Your task to perform on an android device: What's the news this afternoon? Image 0: 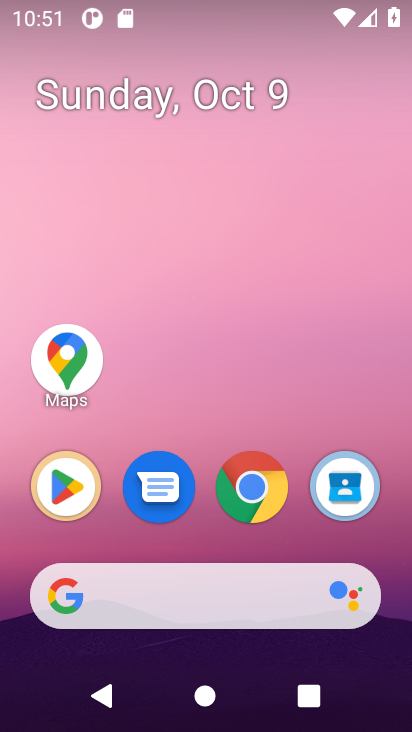
Step 0: click (255, 487)
Your task to perform on an android device: What's the news this afternoon? Image 1: 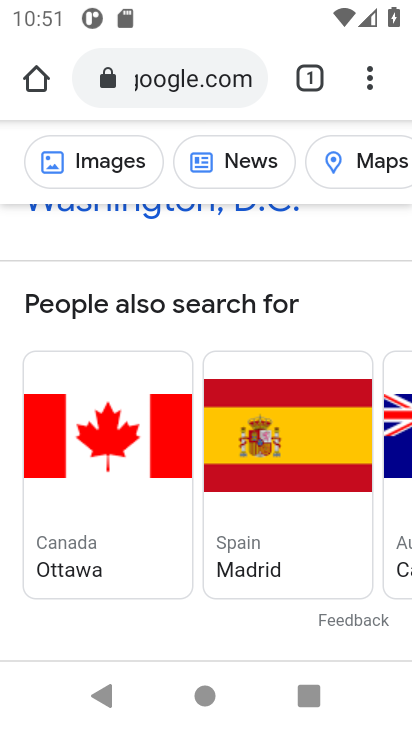
Step 1: click (212, 82)
Your task to perform on an android device: What's the news this afternoon? Image 2: 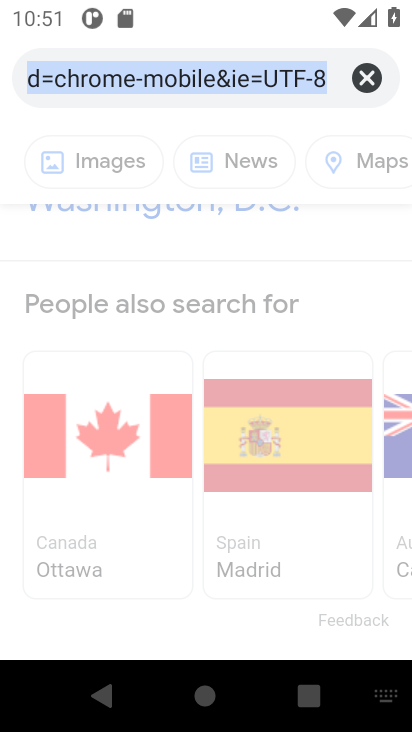
Step 2: type "news this afternoon"
Your task to perform on an android device: What's the news this afternoon? Image 3: 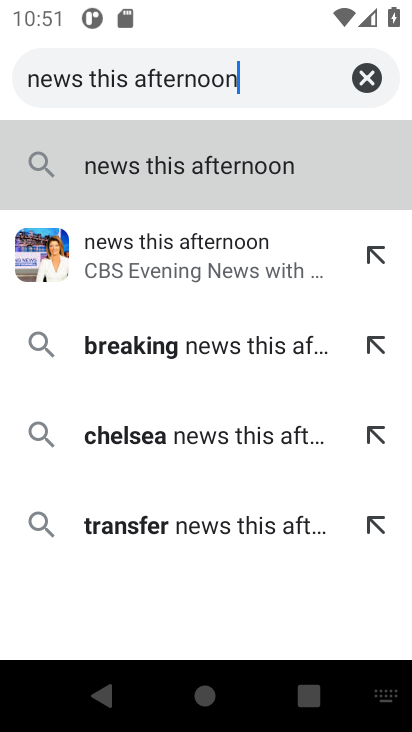
Step 3: type ""
Your task to perform on an android device: What's the news this afternoon? Image 4: 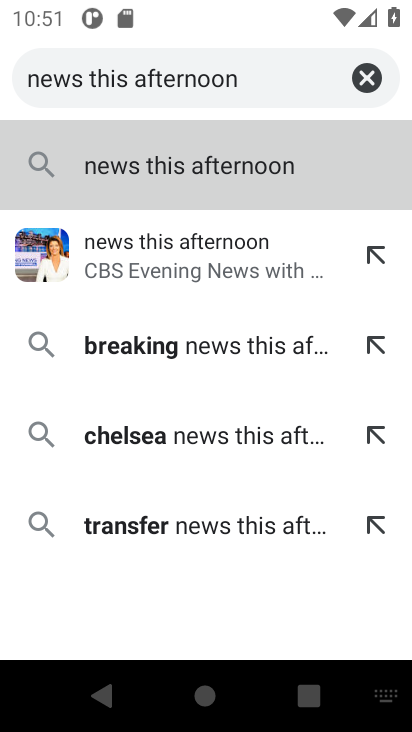
Step 4: press enter
Your task to perform on an android device: What's the news this afternoon? Image 5: 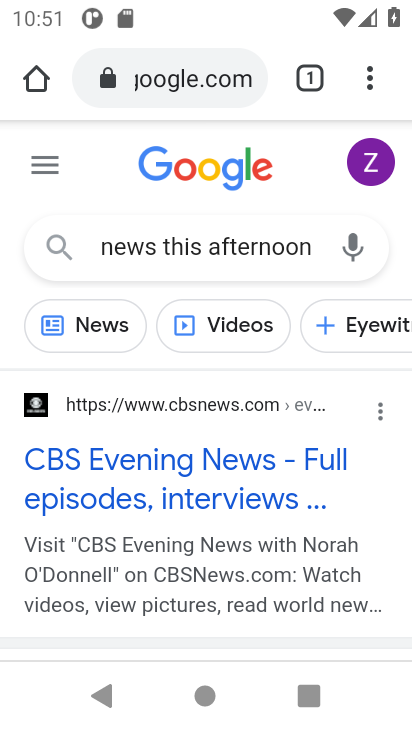
Step 5: click (182, 488)
Your task to perform on an android device: What's the news this afternoon? Image 6: 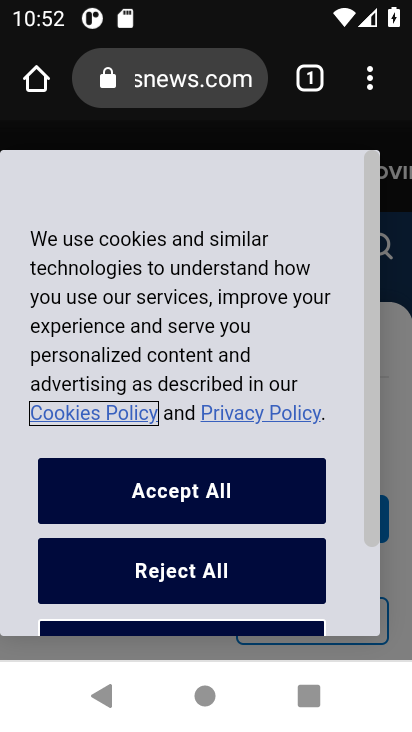
Step 6: click (234, 490)
Your task to perform on an android device: What's the news this afternoon? Image 7: 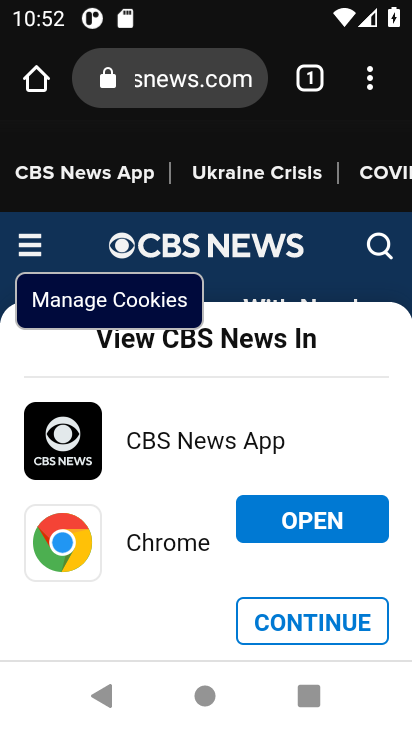
Step 7: click (338, 633)
Your task to perform on an android device: What's the news this afternoon? Image 8: 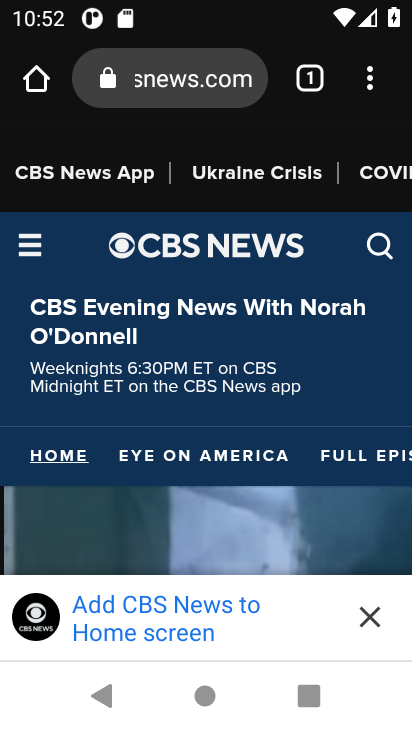
Step 8: click (369, 621)
Your task to perform on an android device: What's the news this afternoon? Image 9: 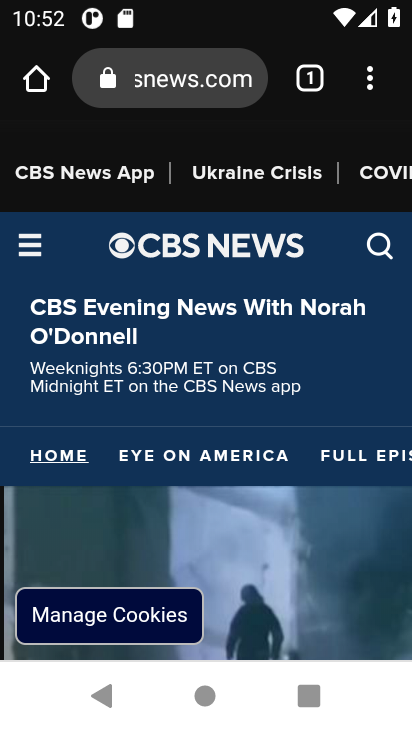
Step 9: drag from (293, 516) to (283, 164)
Your task to perform on an android device: What's the news this afternoon? Image 10: 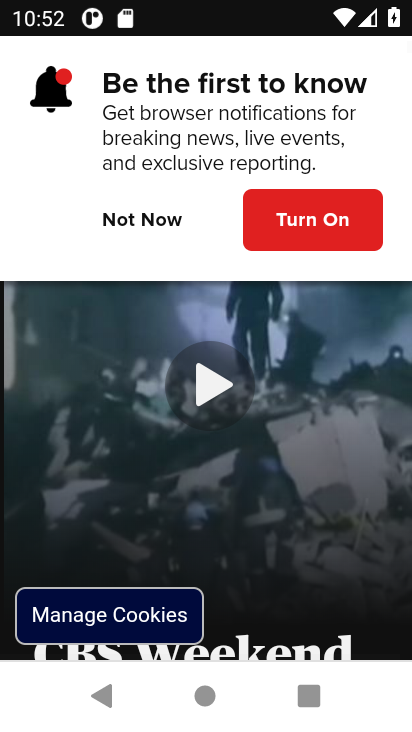
Step 10: drag from (316, 506) to (296, 192)
Your task to perform on an android device: What's the news this afternoon? Image 11: 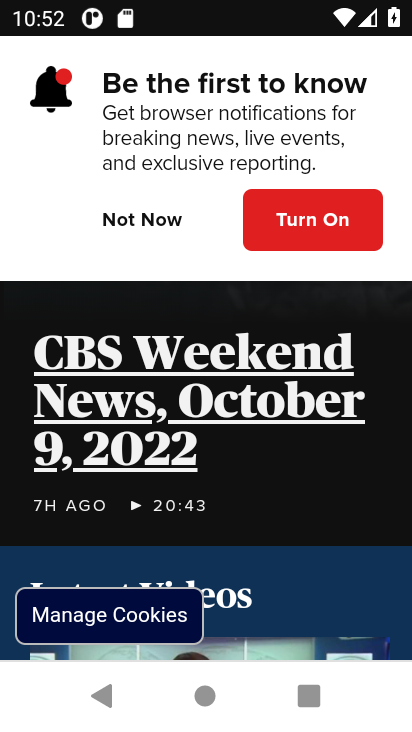
Step 11: drag from (313, 583) to (288, 267)
Your task to perform on an android device: What's the news this afternoon? Image 12: 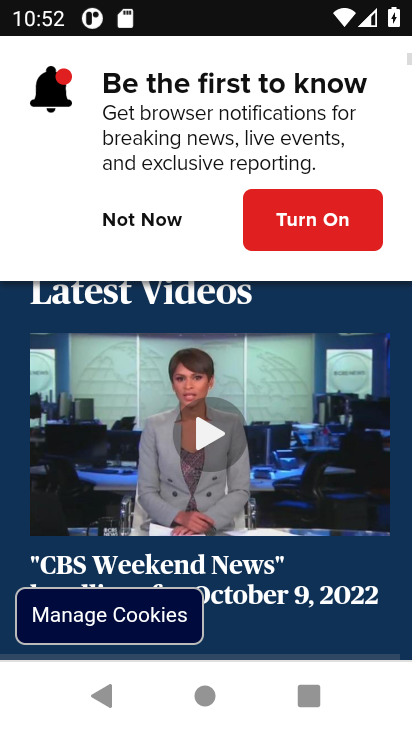
Step 12: drag from (283, 560) to (266, 259)
Your task to perform on an android device: What's the news this afternoon? Image 13: 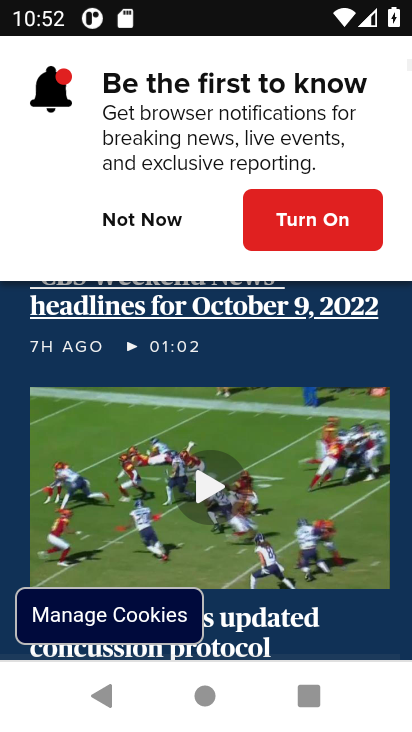
Step 13: drag from (291, 567) to (267, 231)
Your task to perform on an android device: What's the news this afternoon? Image 14: 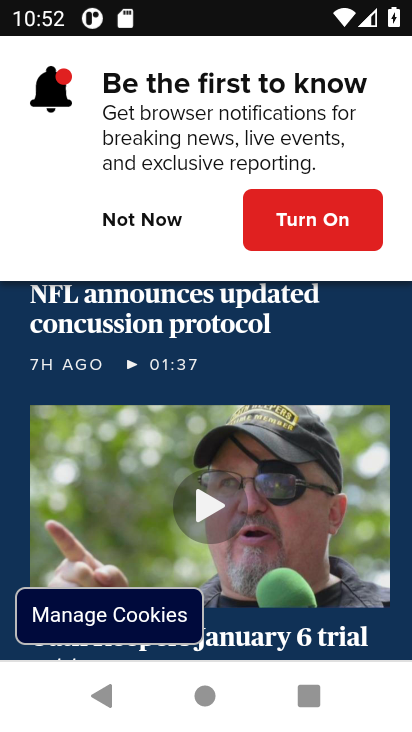
Step 14: drag from (282, 518) to (256, 198)
Your task to perform on an android device: What's the news this afternoon? Image 15: 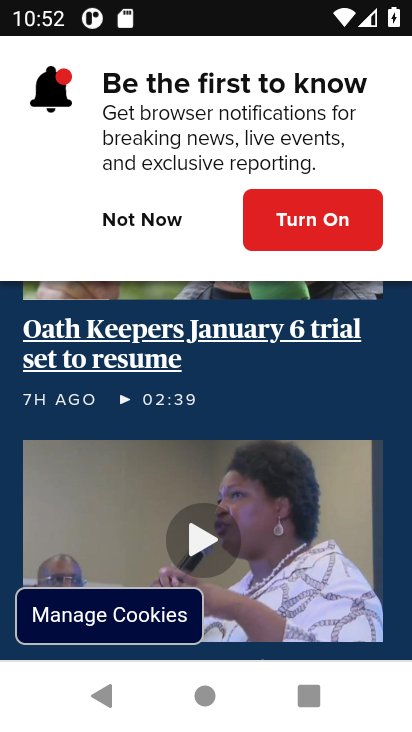
Step 15: click (161, 222)
Your task to perform on an android device: What's the news this afternoon? Image 16: 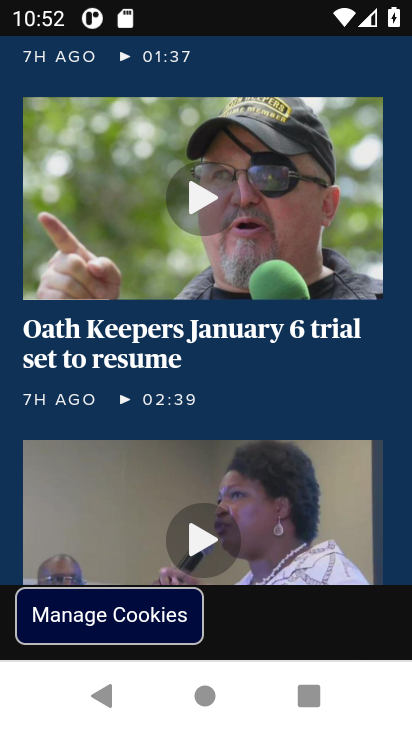
Step 16: task complete